Your task to perform on an android device: Search for vegetarian restaurants on Maps Image 0: 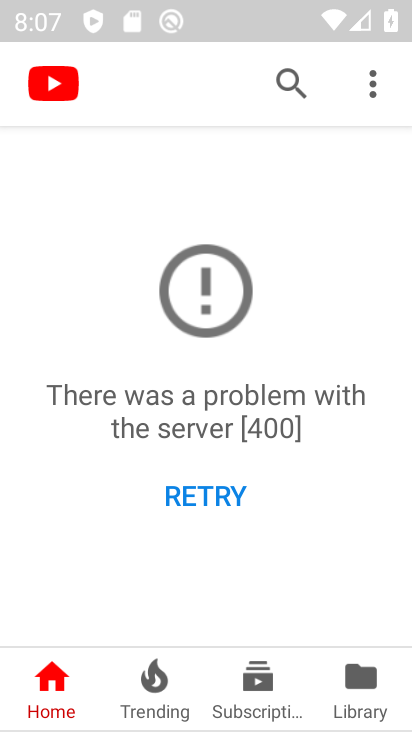
Step 0: press home button
Your task to perform on an android device: Search for vegetarian restaurants on Maps Image 1: 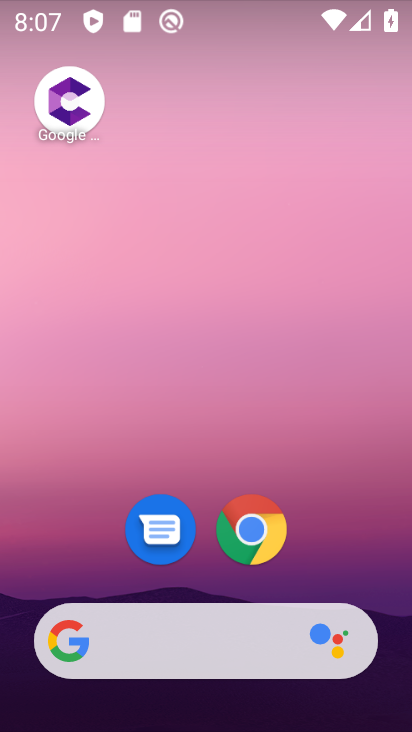
Step 1: drag from (204, 472) to (204, 110)
Your task to perform on an android device: Search for vegetarian restaurants on Maps Image 2: 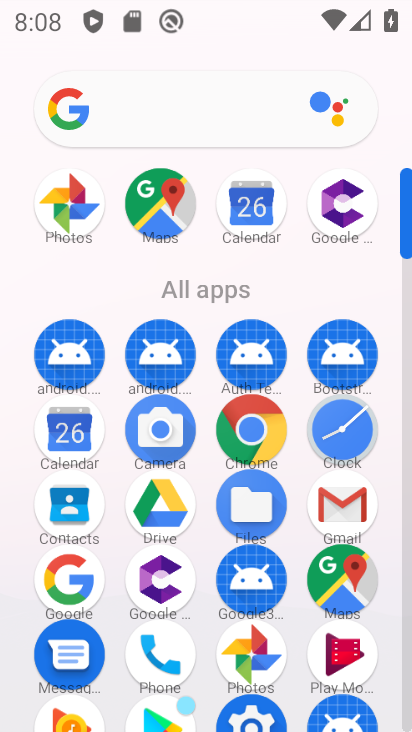
Step 2: click (176, 214)
Your task to perform on an android device: Search for vegetarian restaurants on Maps Image 3: 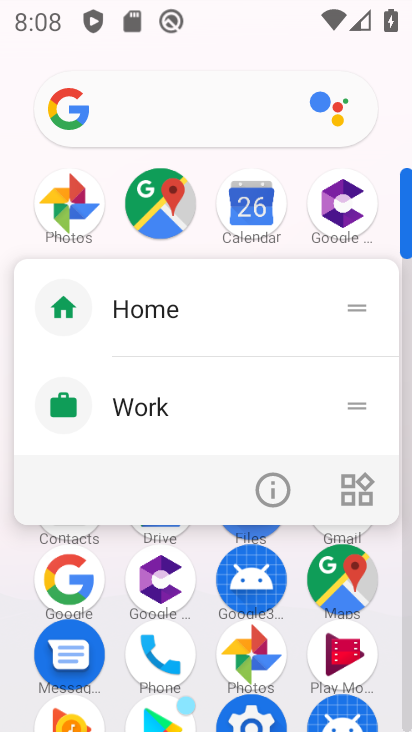
Step 3: click (145, 203)
Your task to perform on an android device: Search for vegetarian restaurants on Maps Image 4: 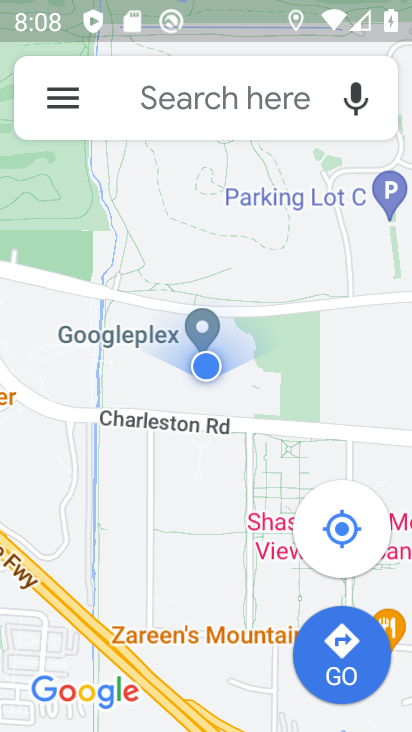
Step 4: click (244, 119)
Your task to perform on an android device: Search for vegetarian restaurants on Maps Image 5: 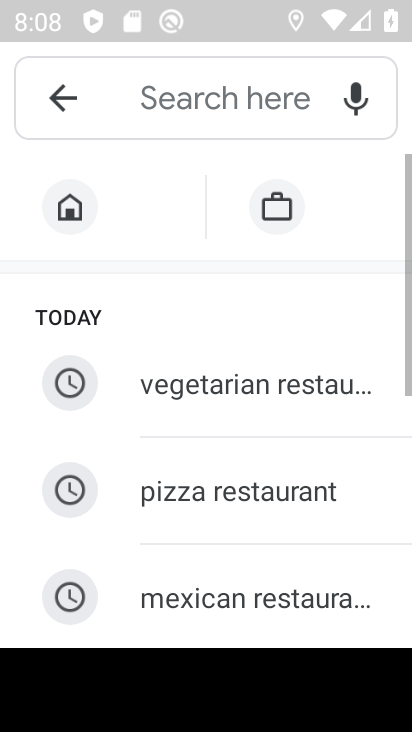
Step 5: click (214, 380)
Your task to perform on an android device: Search for vegetarian restaurants on Maps Image 6: 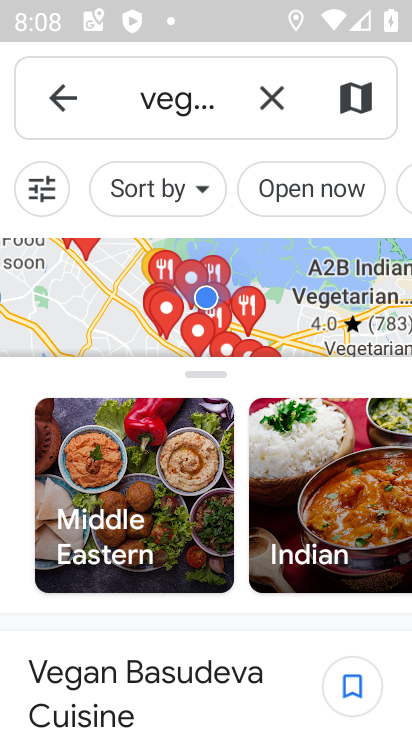
Step 6: task complete